Your task to perform on an android device: turn on priority inbox in the gmail app Image 0: 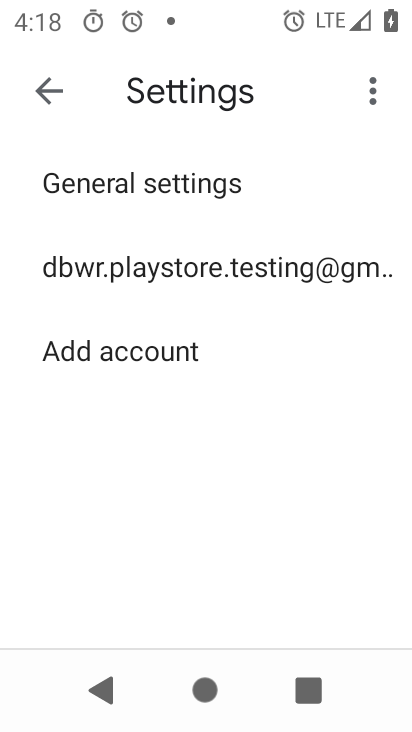
Step 0: click (109, 275)
Your task to perform on an android device: turn on priority inbox in the gmail app Image 1: 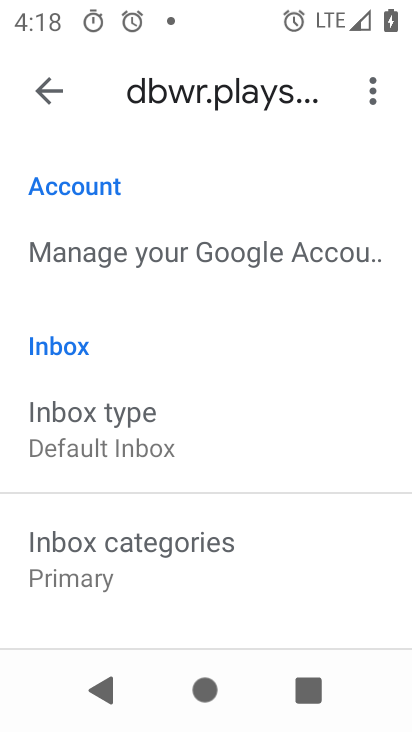
Step 1: click (85, 447)
Your task to perform on an android device: turn on priority inbox in the gmail app Image 2: 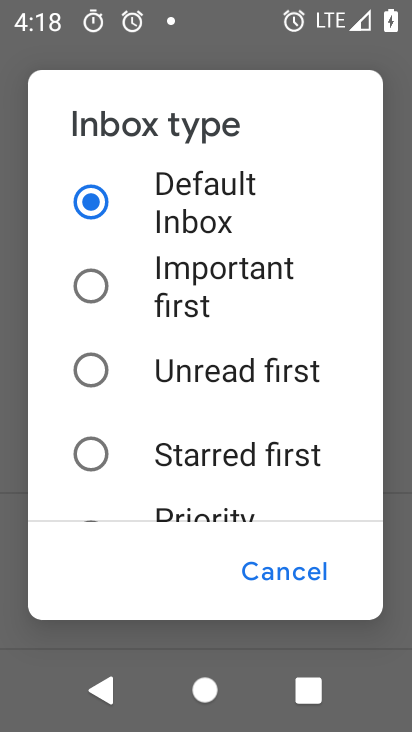
Step 2: drag from (324, 488) to (331, 249)
Your task to perform on an android device: turn on priority inbox in the gmail app Image 3: 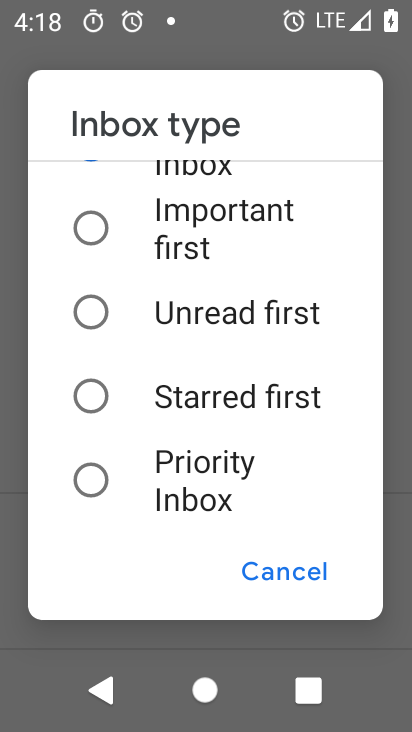
Step 3: click (89, 486)
Your task to perform on an android device: turn on priority inbox in the gmail app Image 4: 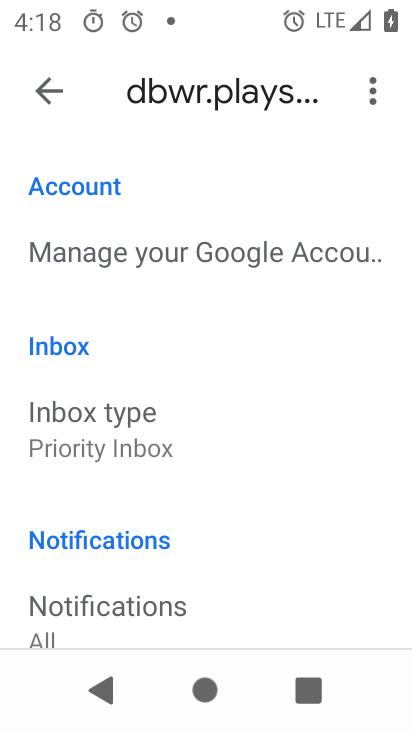
Step 4: task complete